Your task to perform on an android device: turn off airplane mode Image 0: 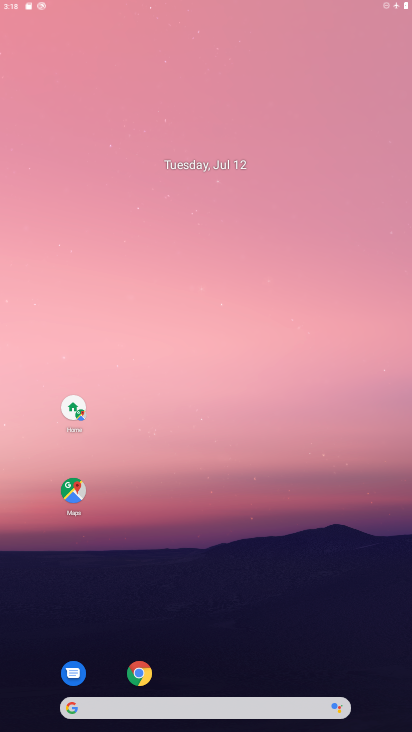
Step 0: drag from (258, 312) to (270, 170)
Your task to perform on an android device: turn off airplane mode Image 1: 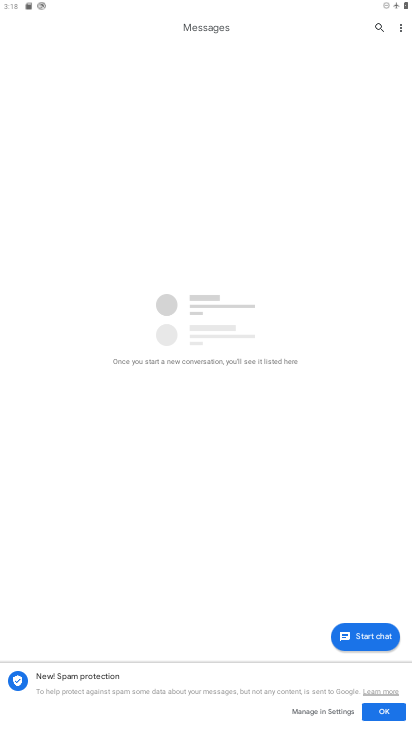
Step 1: press home button
Your task to perform on an android device: turn off airplane mode Image 2: 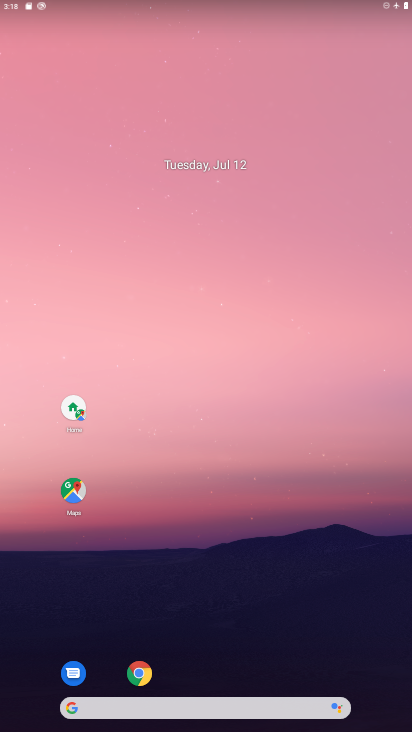
Step 2: drag from (275, 630) to (276, 238)
Your task to perform on an android device: turn off airplane mode Image 3: 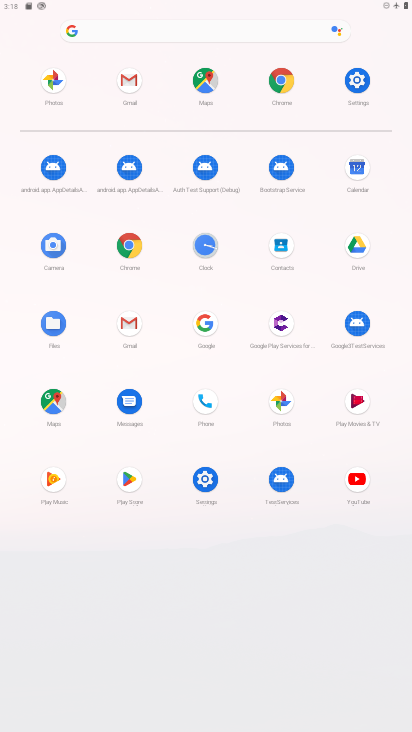
Step 3: click (360, 85)
Your task to perform on an android device: turn off airplane mode Image 4: 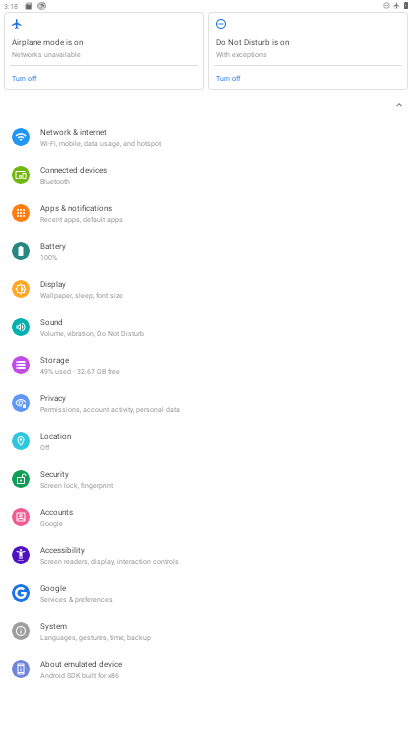
Step 4: click (122, 138)
Your task to perform on an android device: turn off airplane mode Image 5: 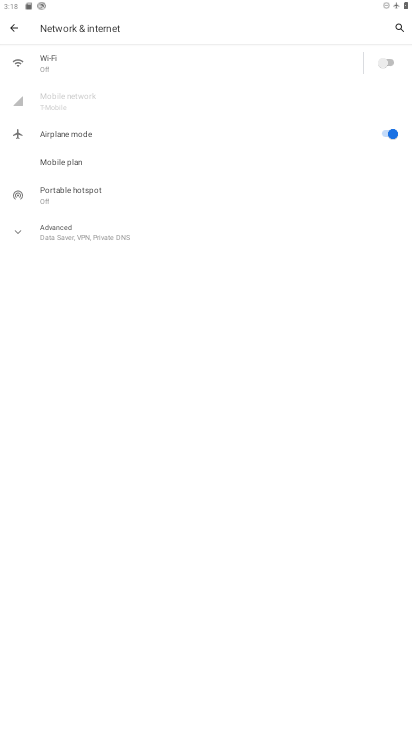
Step 5: click (387, 136)
Your task to perform on an android device: turn off airplane mode Image 6: 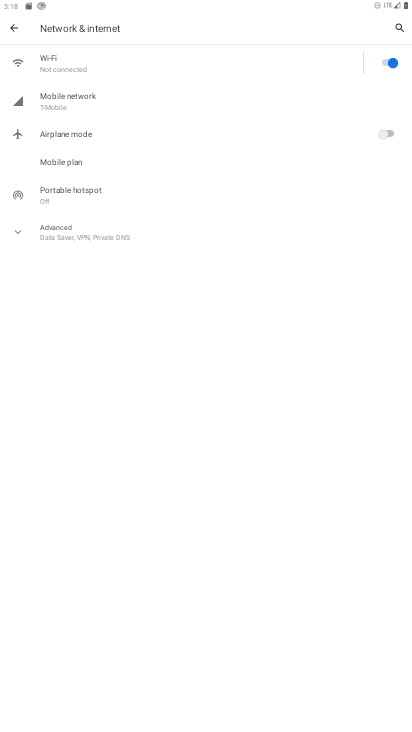
Step 6: task complete